Your task to perform on an android device: Open my contact list Image 0: 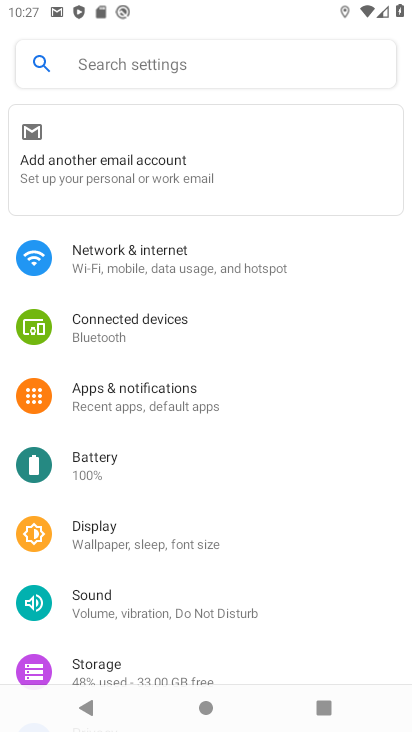
Step 0: press home button
Your task to perform on an android device: Open my contact list Image 1: 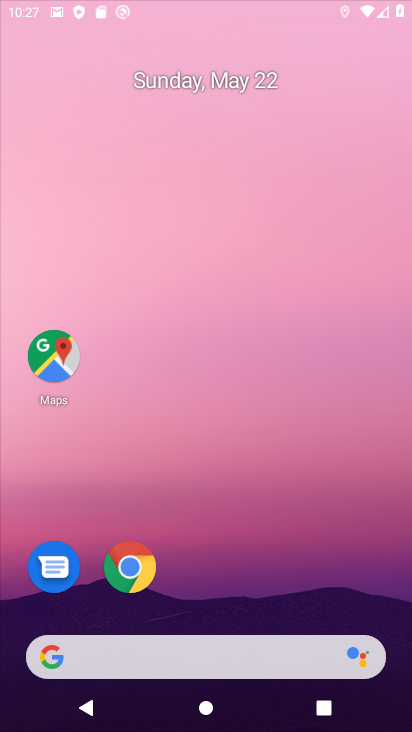
Step 1: drag from (317, 590) to (323, 163)
Your task to perform on an android device: Open my contact list Image 2: 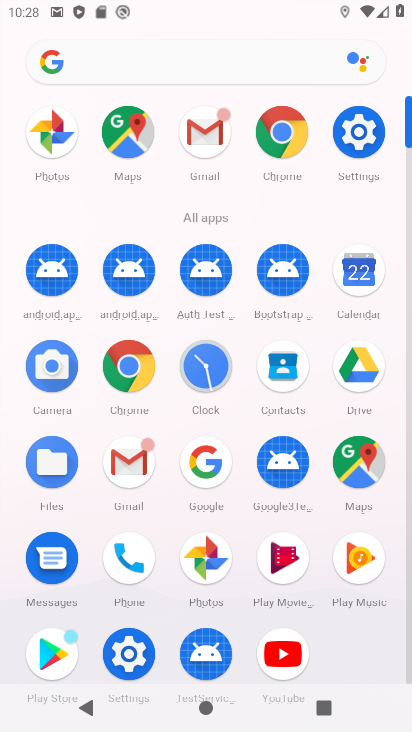
Step 2: click (285, 356)
Your task to perform on an android device: Open my contact list Image 3: 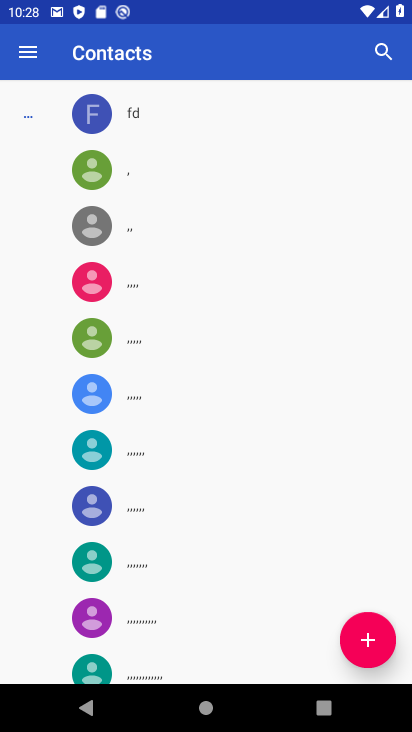
Step 3: click (361, 651)
Your task to perform on an android device: Open my contact list Image 4: 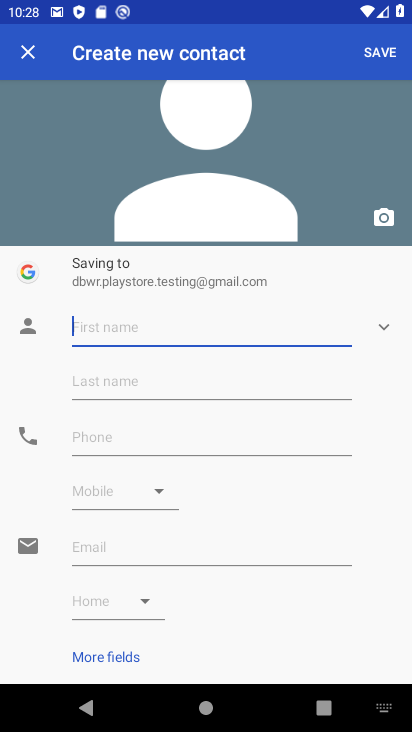
Step 4: click (29, 64)
Your task to perform on an android device: Open my contact list Image 5: 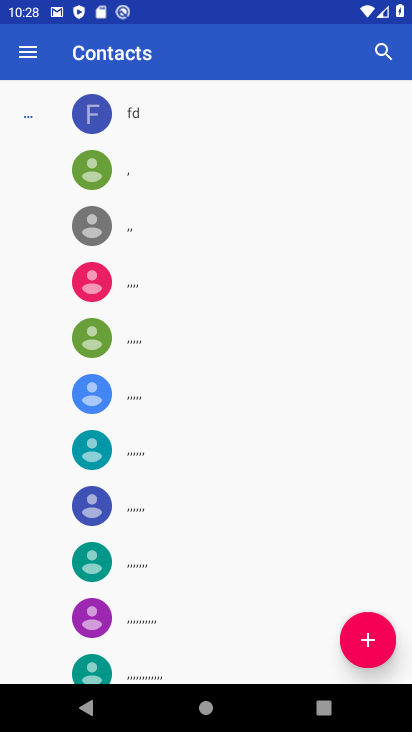
Step 5: task complete